Your task to perform on an android device: Open settings on Google Maps Image 0: 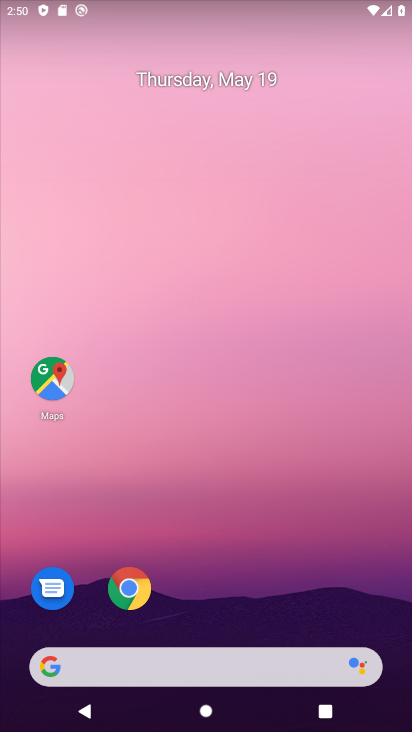
Step 0: drag from (330, 535) to (254, 135)
Your task to perform on an android device: Open settings on Google Maps Image 1: 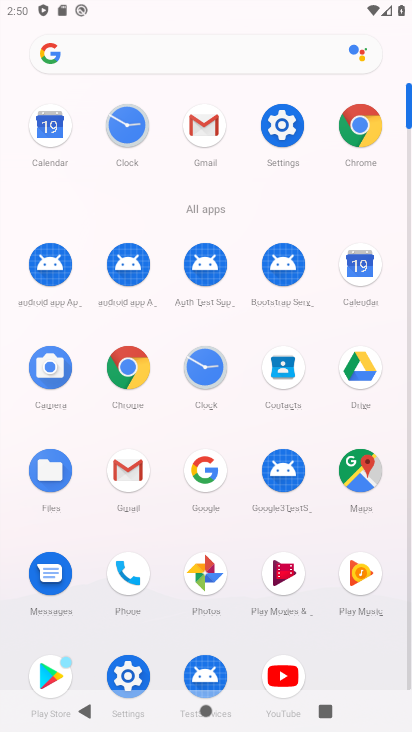
Step 1: click (359, 479)
Your task to perform on an android device: Open settings on Google Maps Image 2: 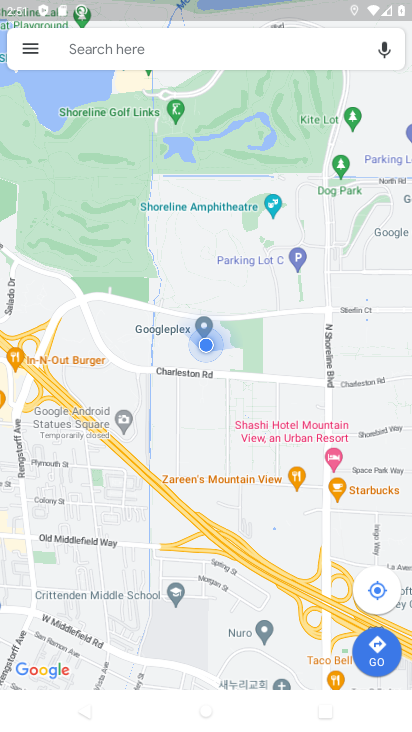
Step 2: task complete